Your task to perform on an android device: Open sound settings Image 0: 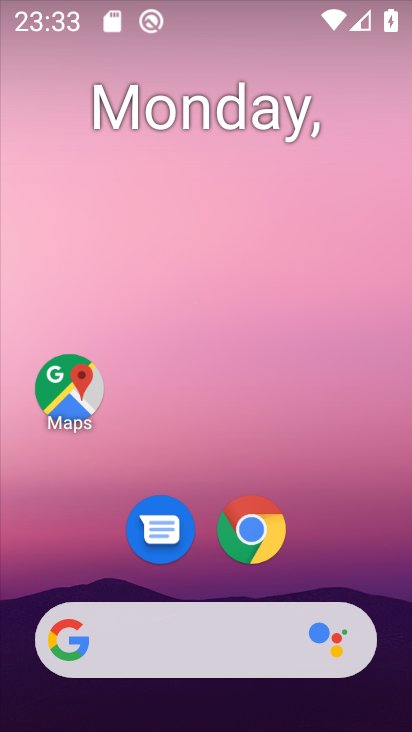
Step 0: drag from (318, 559) to (310, 48)
Your task to perform on an android device: Open sound settings Image 1: 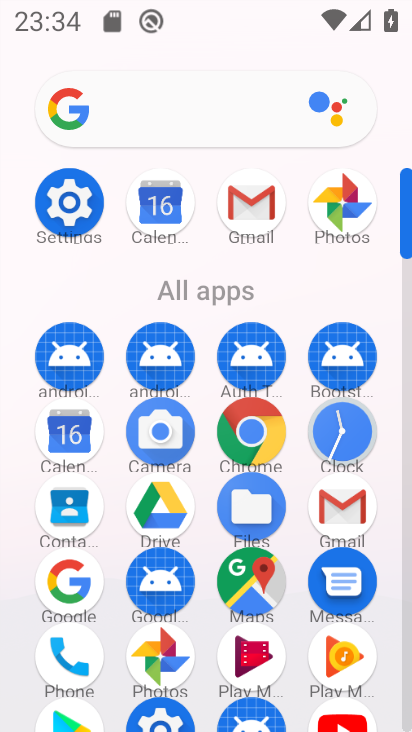
Step 1: click (94, 214)
Your task to perform on an android device: Open sound settings Image 2: 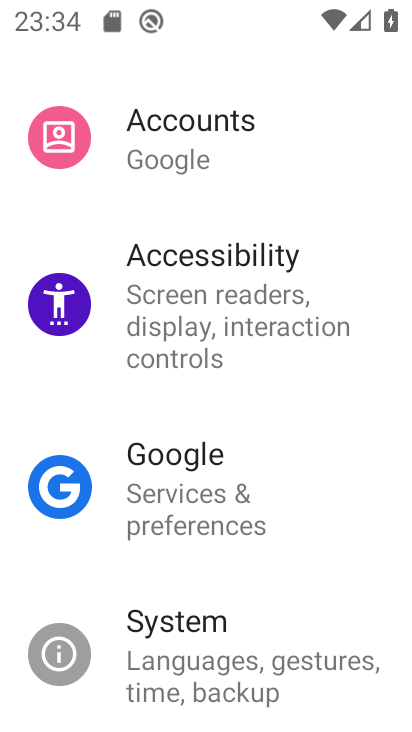
Step 2: drag from (310, 211) to (347, 487)
Your task to perform on an android device: Open sound settings Image 3: 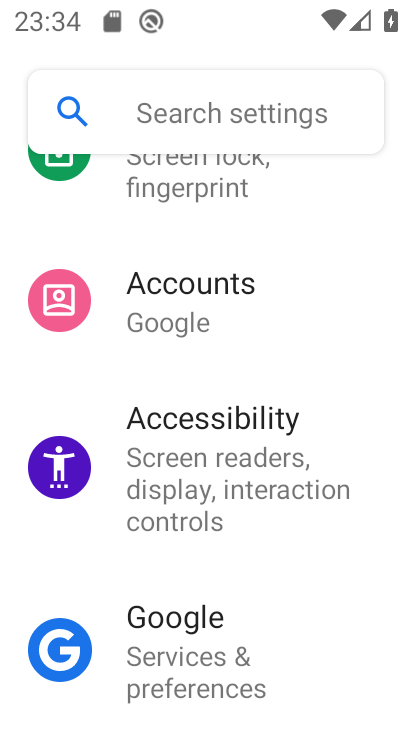
Step 3: drag from (318, 247) to (270, 623)
Your task to perform on an android device: Open sound settings Image 4: 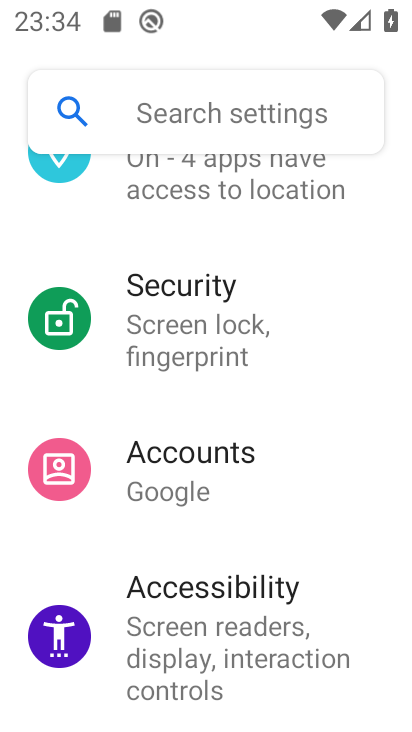
Step 4: drag from (302, 312) to (263, 637)
Your task to perform on an android device: Open sound settings Image 5: 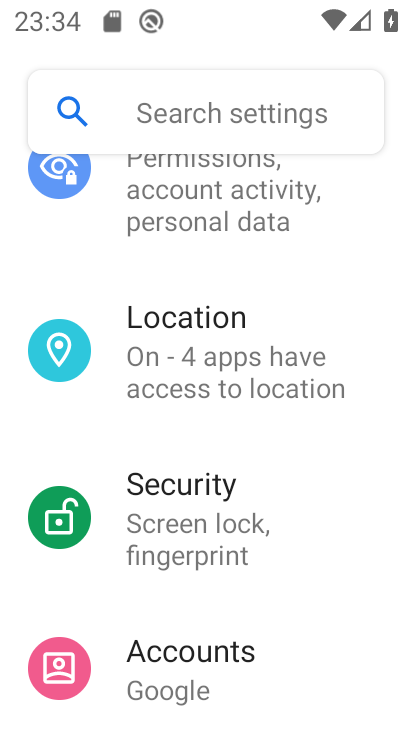
Step 5: drag from (326, 253) to (329, 573)
Your task to perform on an android device: Open sound settings Image 6: 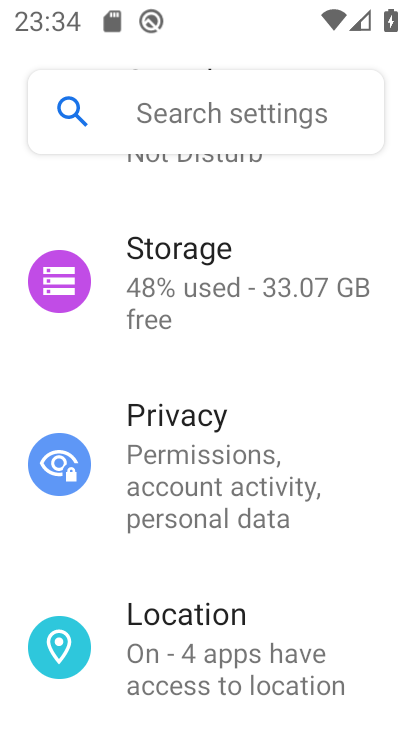
Step 6: drag from (320, 270) to (300, 579)
Your task to perform on an android device: Open sound settings Image 7: 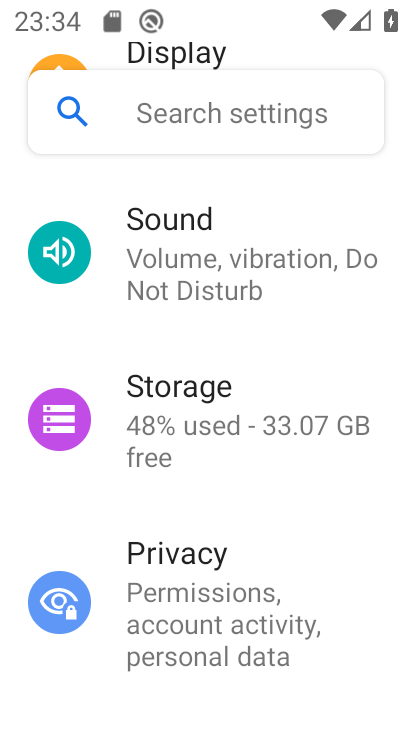
Step 7: click (282, 281)
Your task to perform on an android device: Open sound settings Image 8: 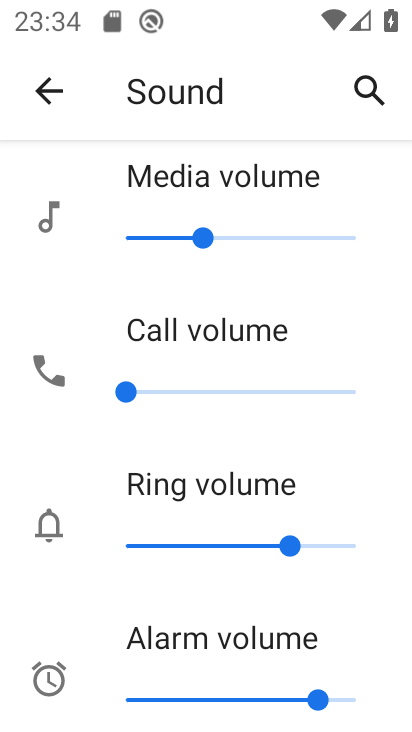
Step 8: task complete